Your task to perform on an android device: check storage Image 0: 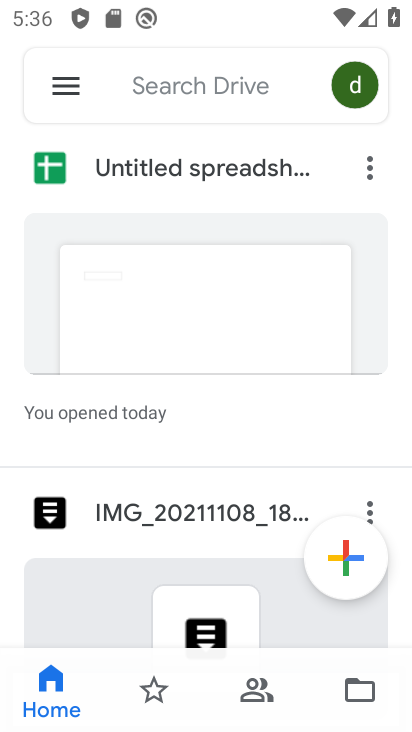
Step 0: press home button
Your task to perform on an android device: check storage Image 1: 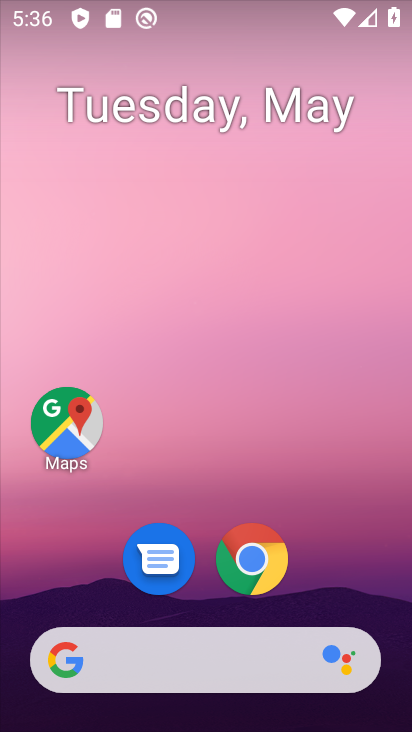
Step 1: drag from (296, 608) to (280, 260)
Your task to perform on an android device: check storage Image 2: 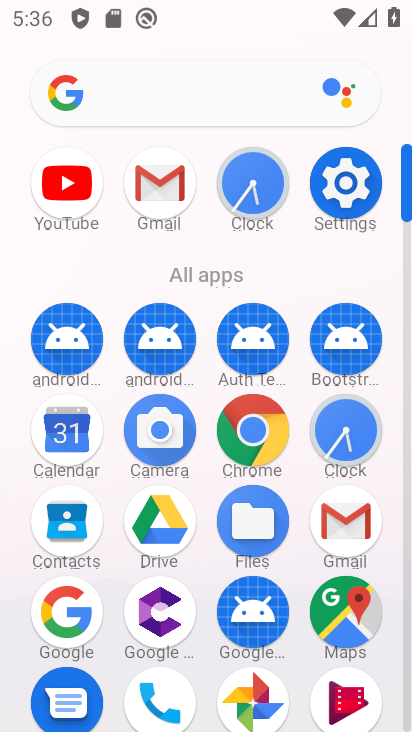
Step 2: click (343, 203)
Your task to perform on an android device: check storage Image 3: 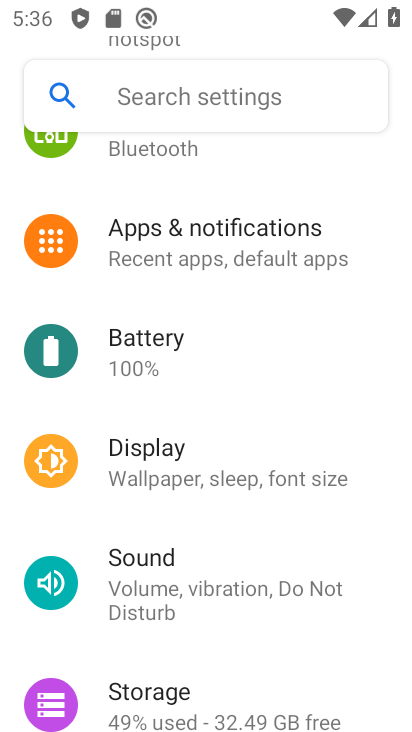
Step 3: click (160, 713)
Your task to perform on an android device: check storage Image 4: 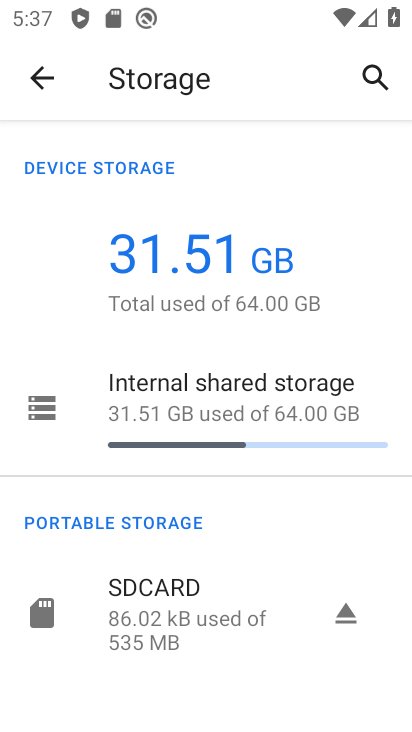
Step 4: task complete